Your task to perform on an android device: open app "Skype" (install if not already installed) Image 0: 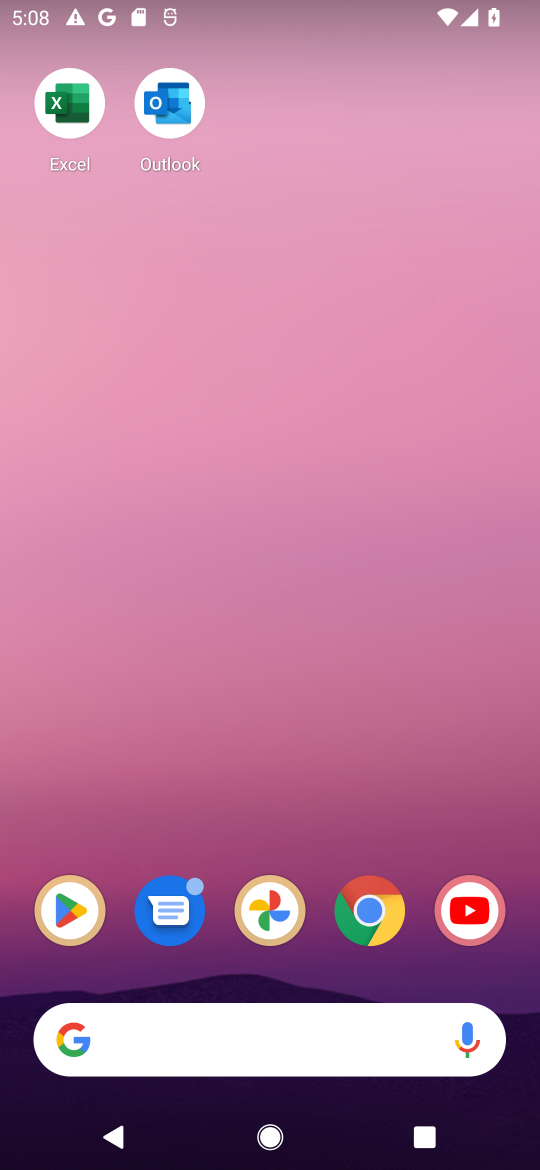
Step 0: drag from (238, 963) to (224, 183)
Your task to perform on an android device: open app "Skype" (install if not already installed) Image 1: 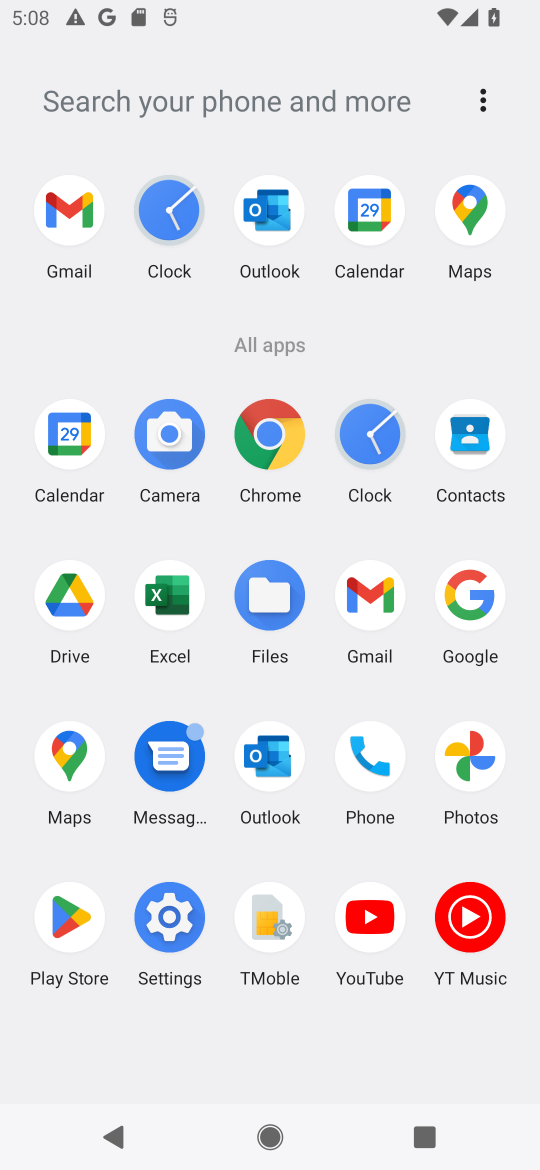
Step 1: click (62, 918)
Your task to perform on an android device: open app "Skype" (install if not already installed) Image 2: 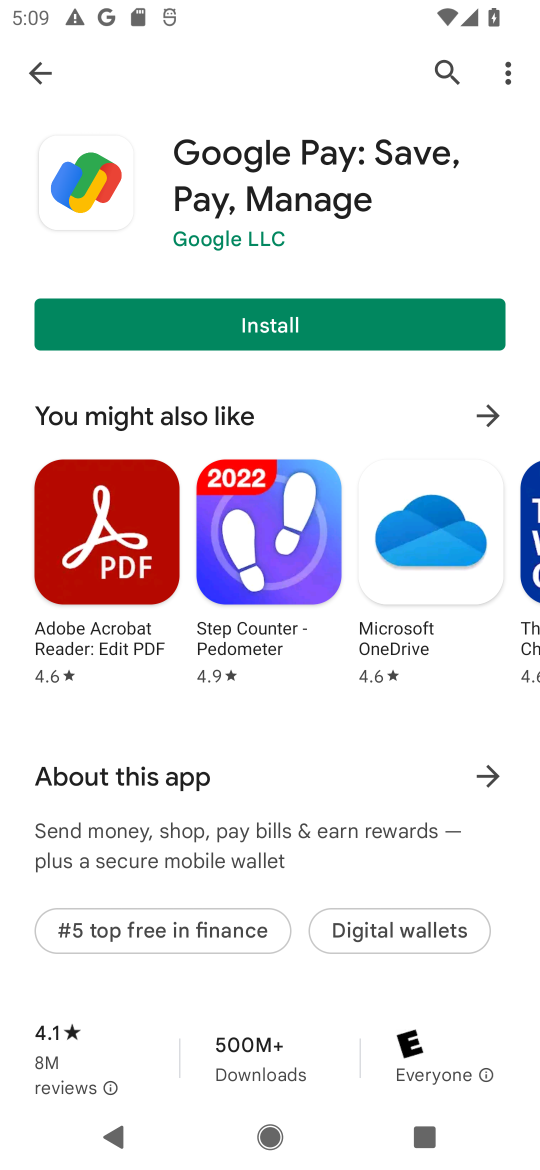
Step 2: click (42, 60)
Your task to perform on an android device: open app "Skype" (install if not already installed) Image 3: 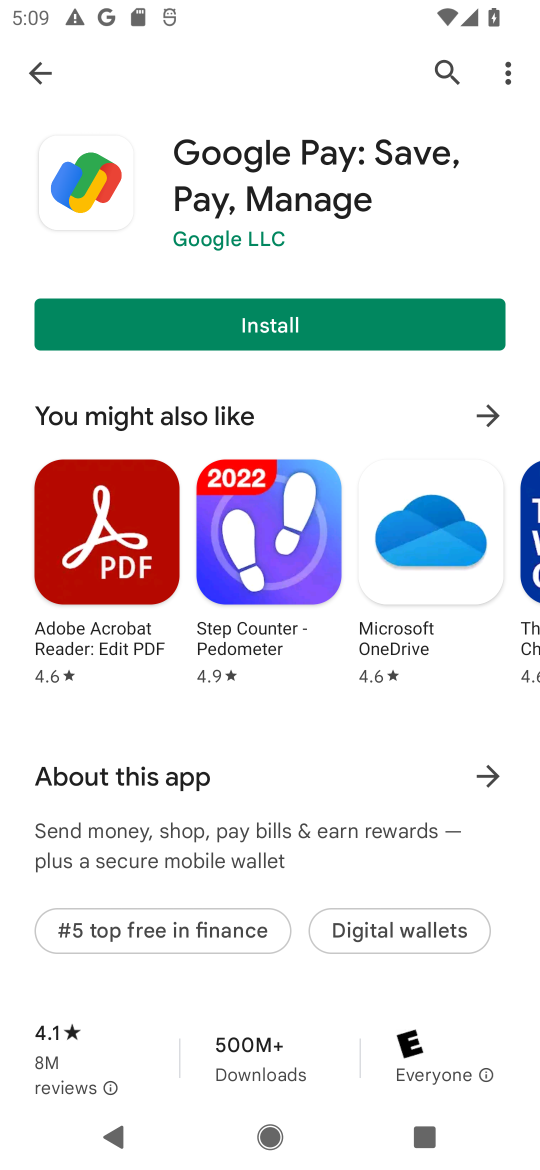
Step 3: type "skype"
Your task to perform on an android device: open app "Skype" (install if not already installed) Image 4: 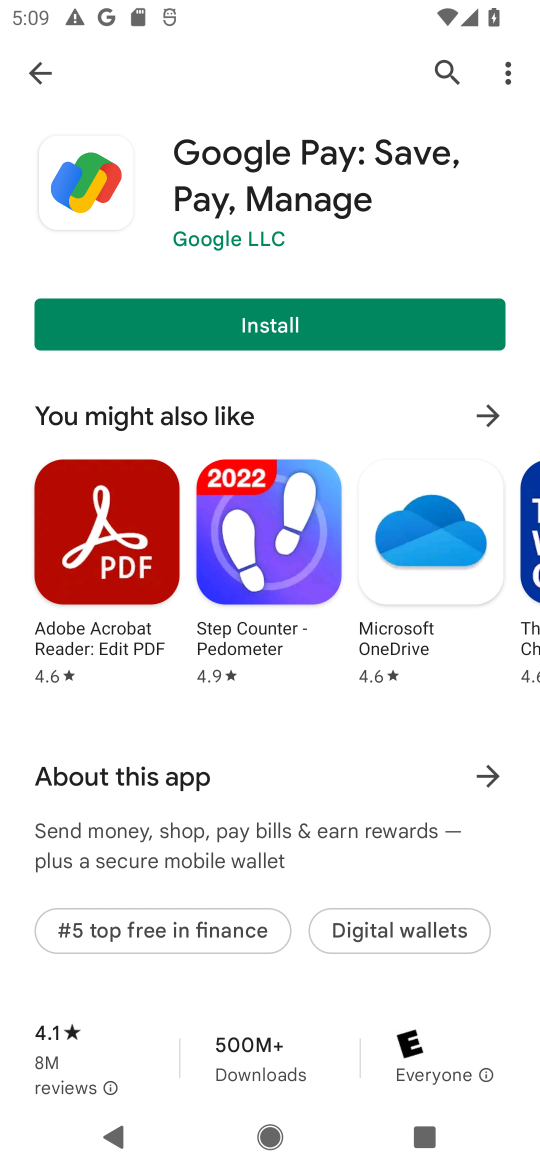
Step 4: click (45, 73)
Your task to perform on an android device: open app "Skype" (install if not already installed) Image 5: 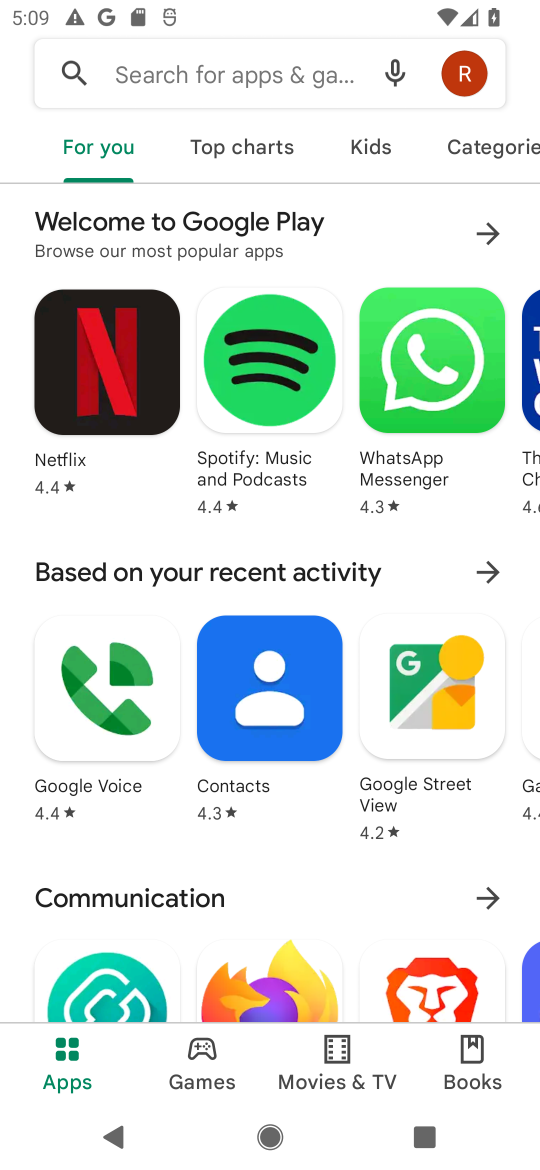
Step 5: click (173, 79)
Your task to perform on an android device: open app "Skype" (install if not already installed) Image 6: 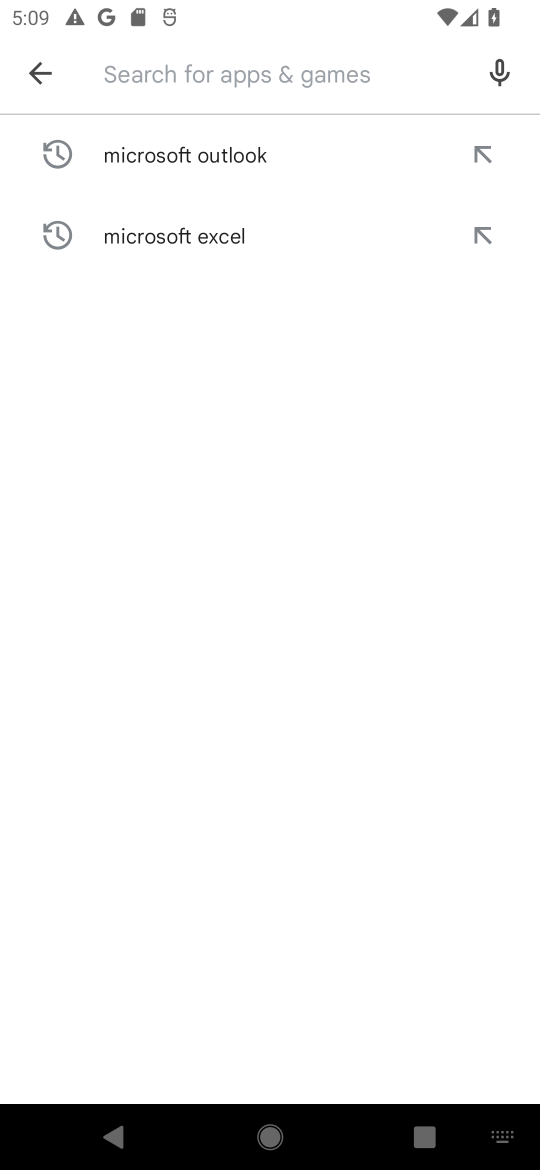
Step 6: type "skype"
Your task to perform on an android device: open app "Skype" (install if not already installed) Image 7: 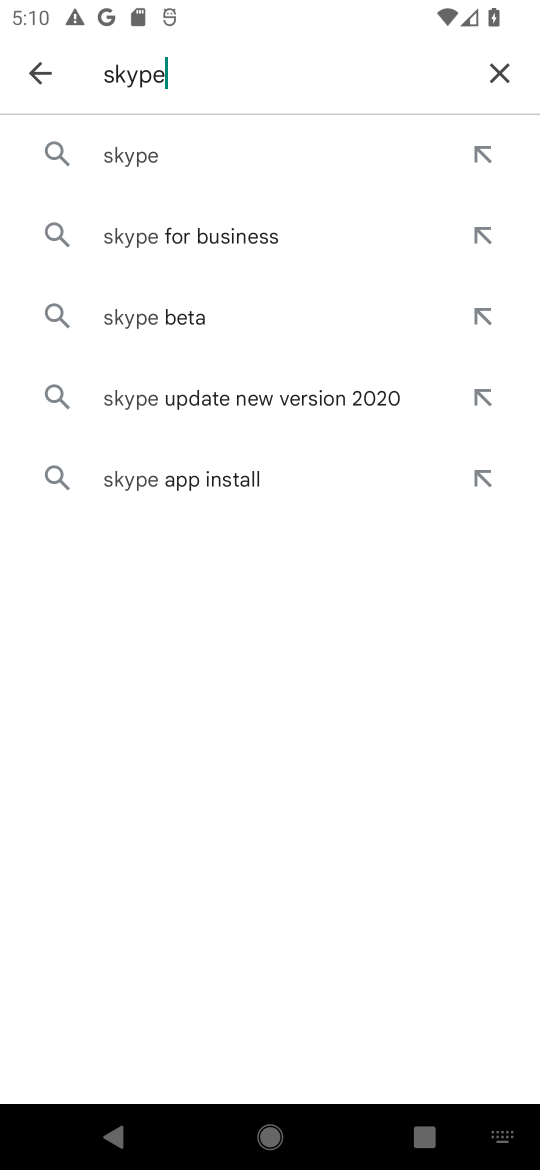
Step 7: click (167, 161)
Your task to perform on an android device: open app "Skype" (install if not already installed) Image 8: 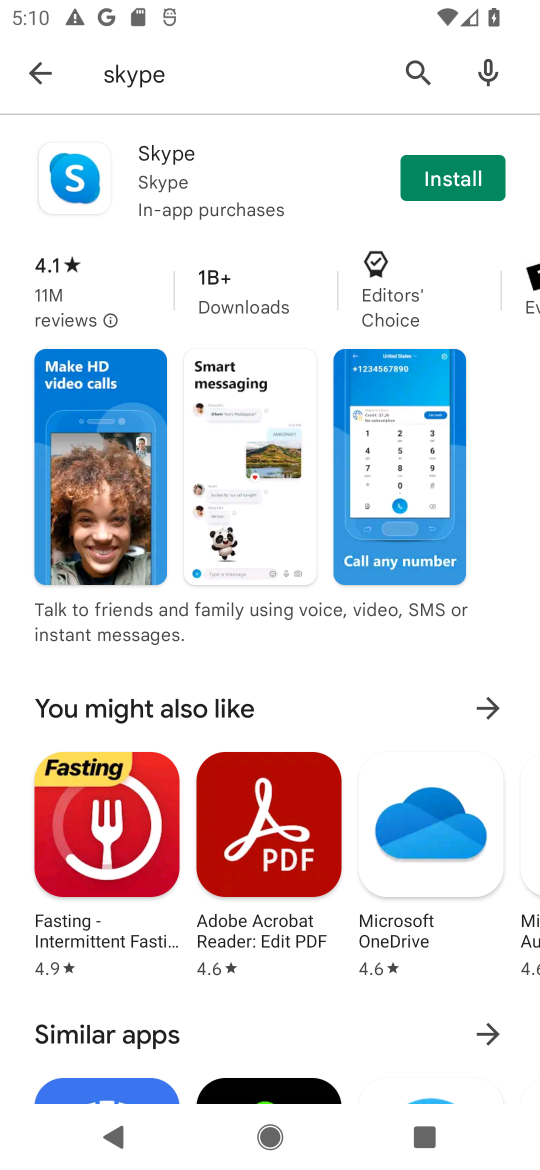
Step 8: click (463, 177)
Your task to perform on an android device: open app "Skype" (install if not already installed) Image 9: 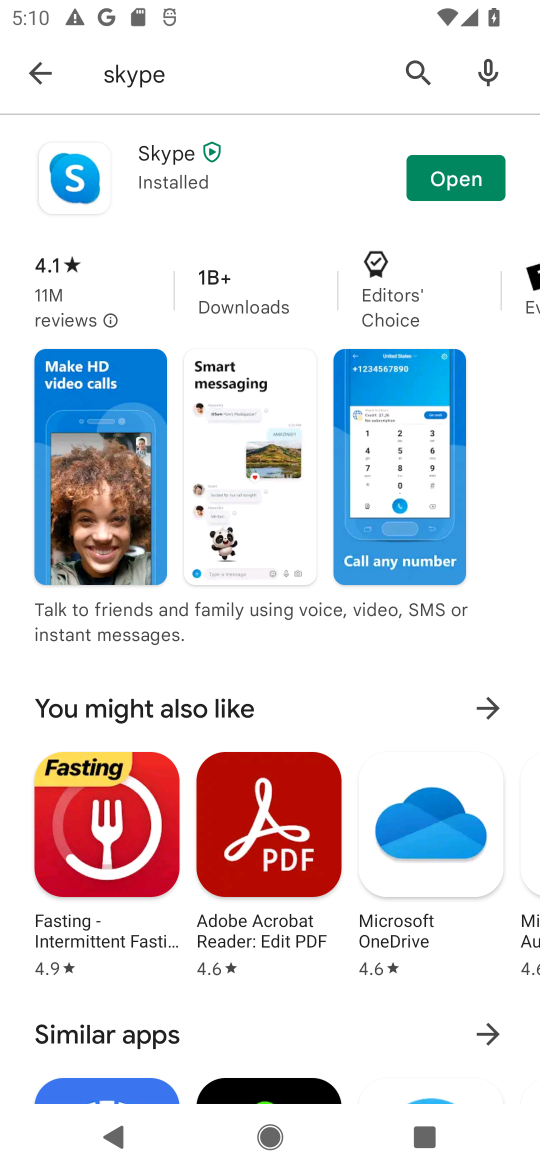
Step 9: click (451, 183)
Your task to perform on an android device: open app "Skype" (install if not already installed) Image 10: 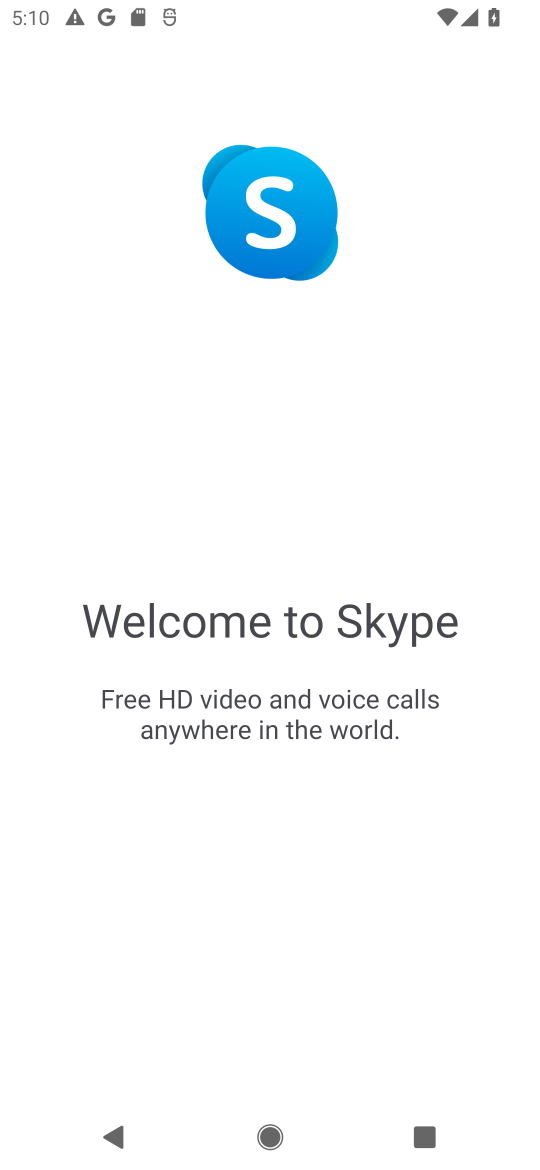
Step 10: task complete